Your task to perform on an android device: turn pop-ups off in chrome Image 0: 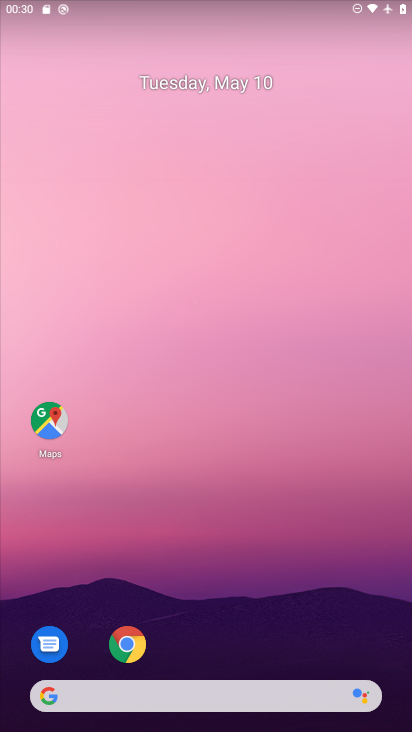
Step 0: click (143, 652)
Your task to perform on an android device: turn pop-ups off in chrome Image 1: 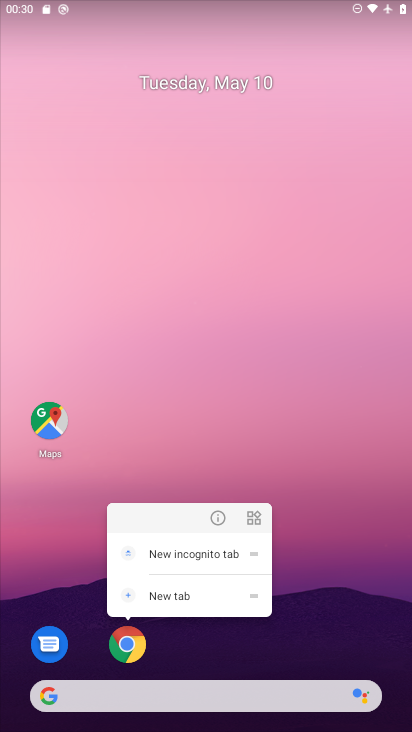
Step 1: click (127, 660)
Your task to perform on an android device: turn pop-ups off in chrome Image 2: 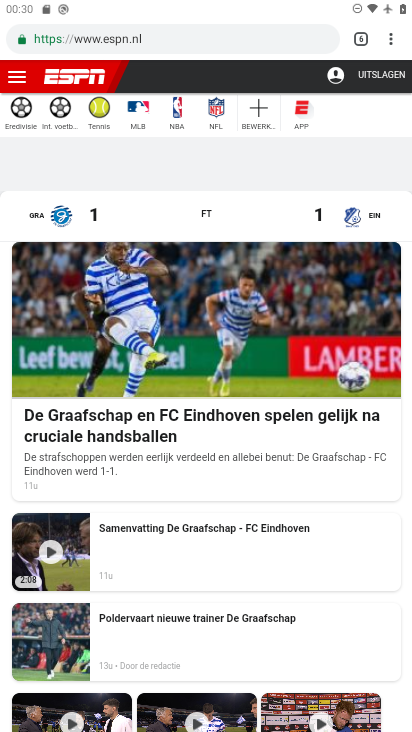
Step 2: drag from (393, 37) to (266, 468)
Your task to perform on an android device: turn pop-ups off in chrome Image 3: 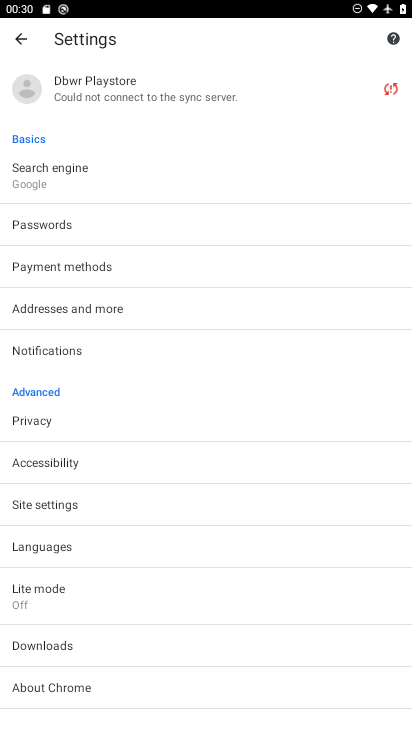
Step 3: click (53, 506)
Your task to perform on an android device: turn pop-ups off in chrome Image 4: 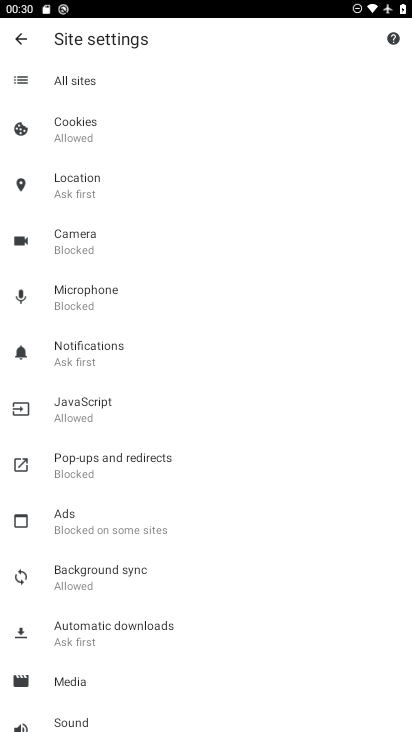
Step 4: click (102, 473)
Your task to perform on an android device: turn pop-ups off in chrome Image 5: 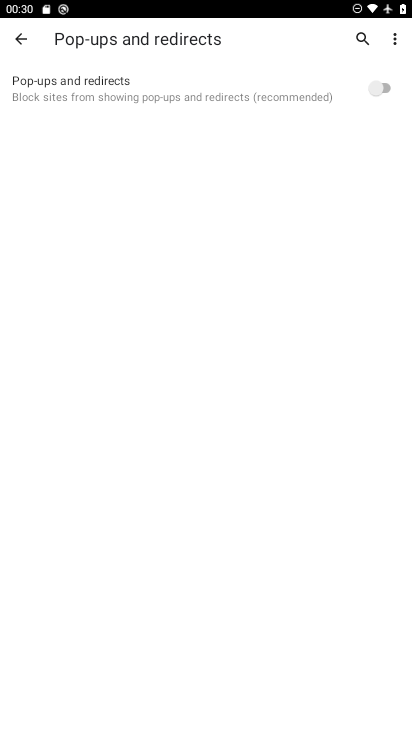
Step 5: task complete